Your task to perform on an android device: see sites visited before in the chrome app Image 0: 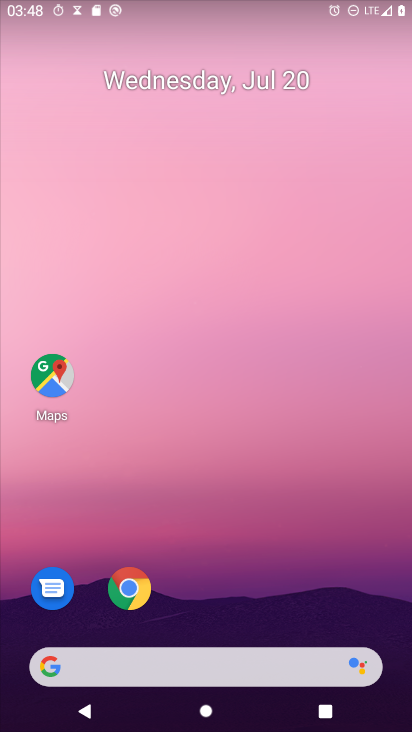
Step 0: drag from (186, 649) to (199, 25)
Your task to perform on an android device: see sites visited before in the chrome app Image 1: 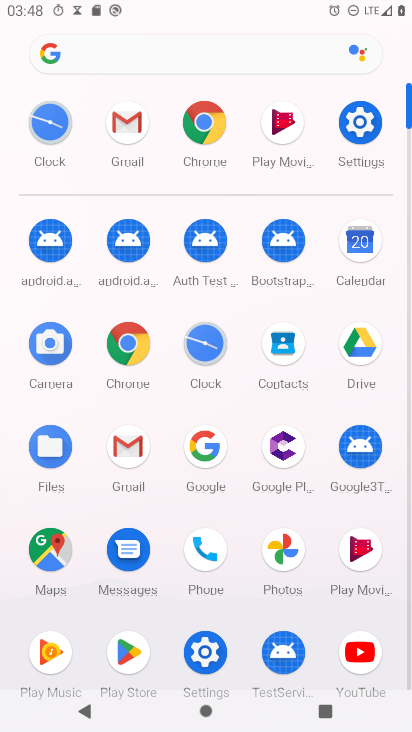
Step 1: click (127, 339)
Your task to perform on an android device: see sites visited before in the chrome app Image 2: 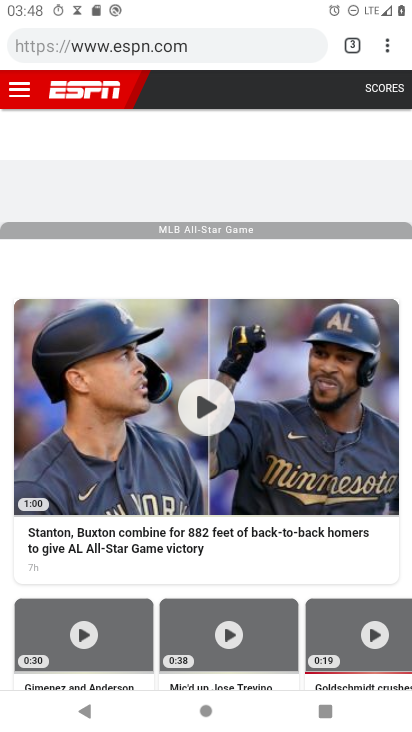
Step 2: click (350, 52)
Your task to perform on an android device: see sites visited before in the chrome app Image 3: 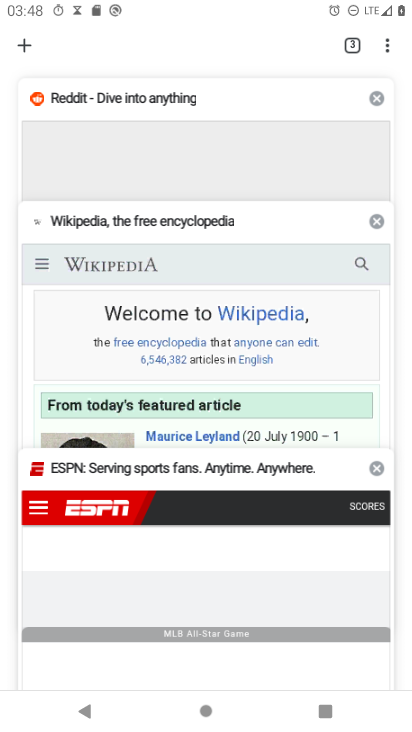
Step 3: task complete